Your task to perform on an android device: see sites visited before in the chrome app Image 0: 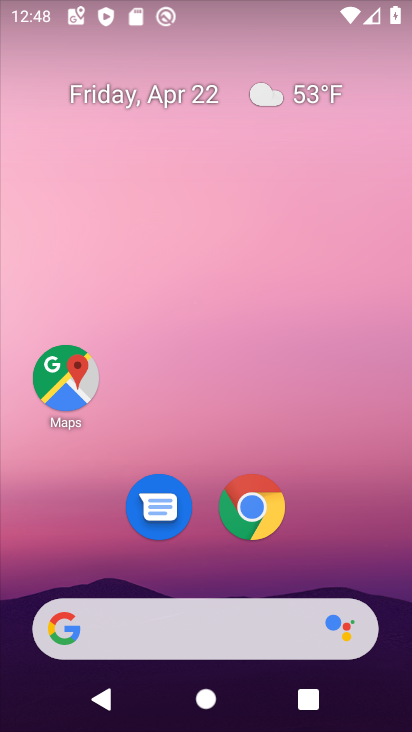
Step 0: click (257, 511)
Your task to perform on an android device: see sites visited before in the chrome app Image 1: 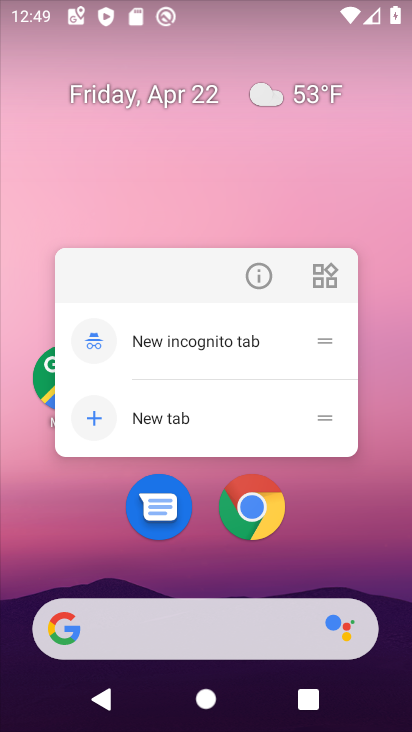
Step 1: click (247, 505)
Your task to perform on an android device: see sites visited before in the chrome app Image 2: 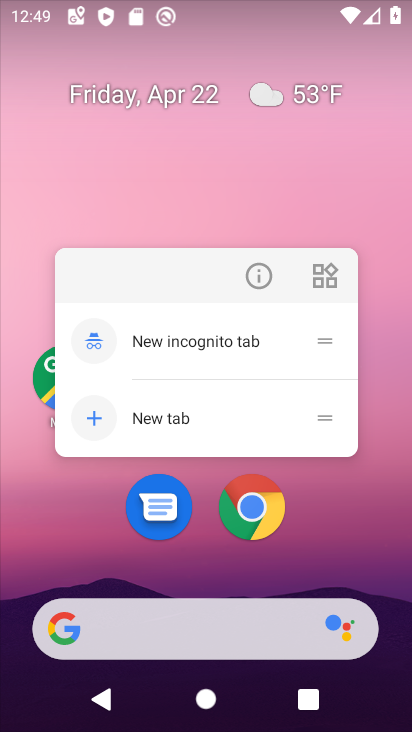
Step 2: click (247, 505)
Your task to perform on an android device: see sites visited before in the chrome app Image 3: 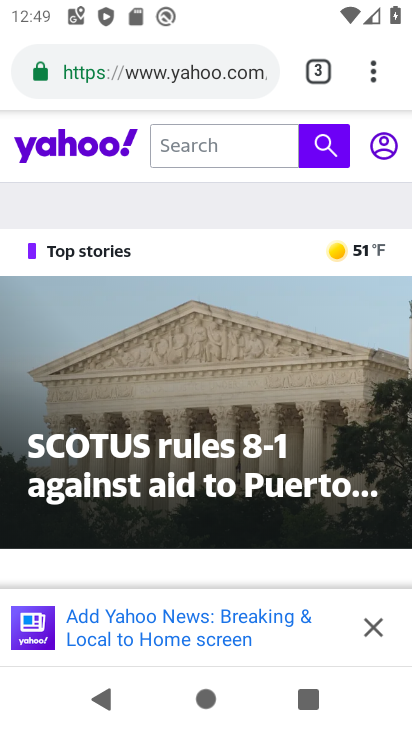
Step 3: drag from (372, 74) to (106, 409)
Your task to perform on an android device: see sites visited before in the chrome app Image 4: 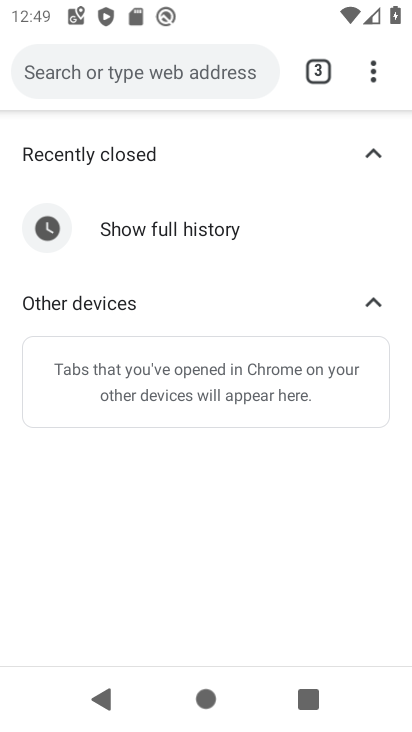
Step 4: click (155, 233)
Your task to perform on an android device: see sites visited before in the chrome app Image 5: 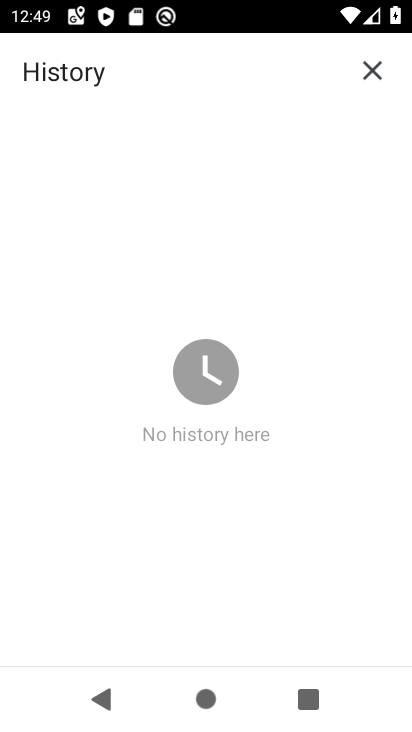
Step 5: task complete